Your task to perform on an android device: Go to network settings Image 0: 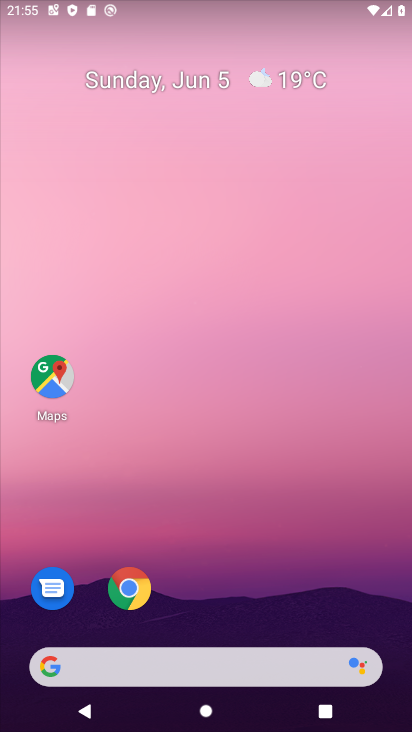
Step 0: drag from (309, 619) to (306, 140)
Your task to perform on an android device: Go to network settings Image 1: 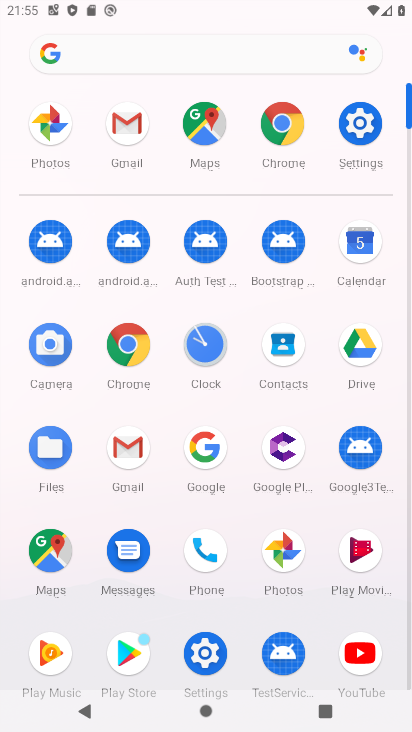
Step 1: click (370, 127)
Your task to perform on an android device: Go to network settings Image 2: 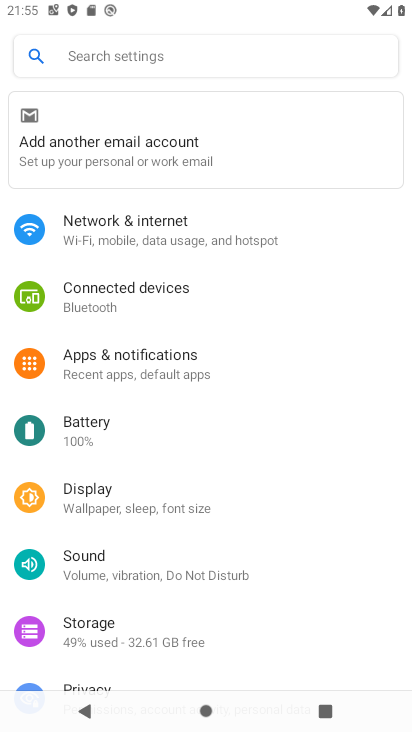
Step 2: drag from (341, 525) to (327, 361)
Your task to perform on an android device: Go to network settings Image 3: 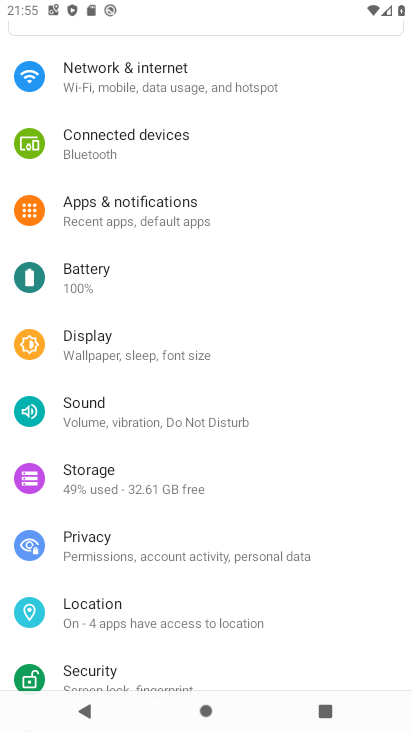
Step 3: drag from (352, 566) to (356, 409)
Your task to perform on an android device: Go to network settings Image 4: 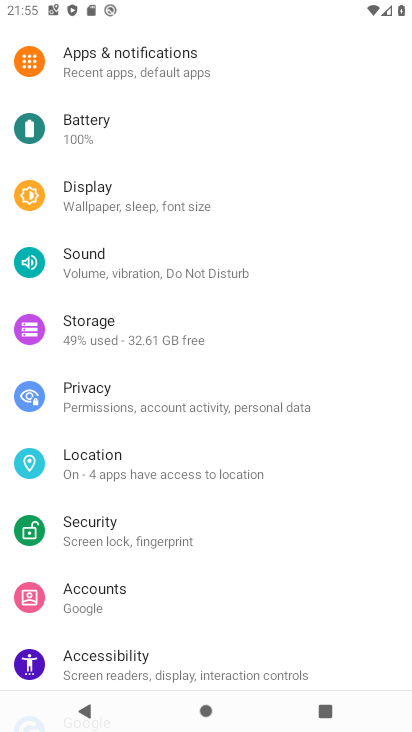
Step 4: drag from (338, 528) to (338, 327)
Your task to perform on an android device: Go to network settings Image 5: 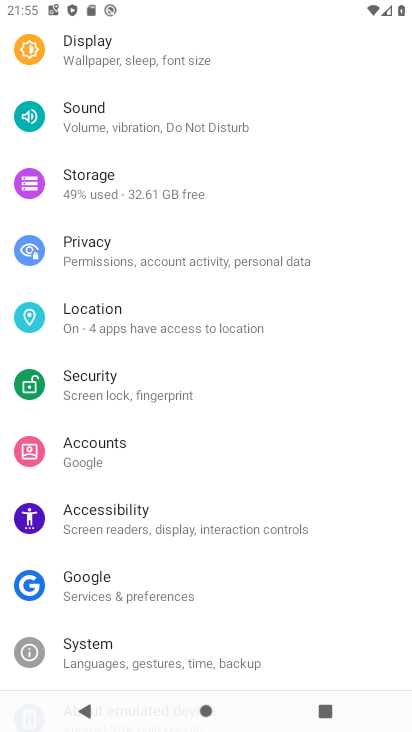
Step 5: drag from (347, 602) to (360, 394)
Your task to perform on an android device: Go to network settings Image 6: 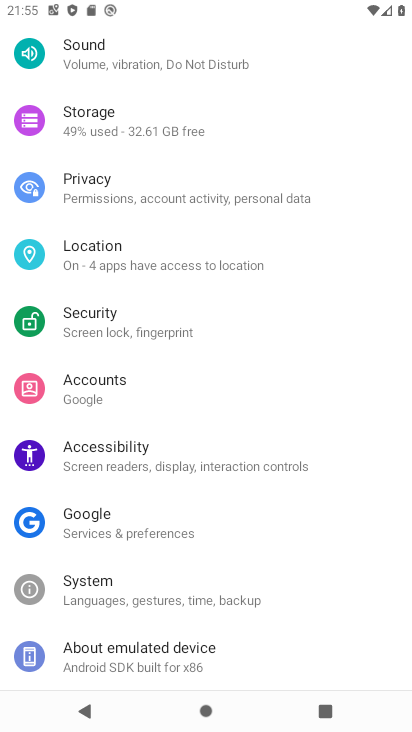
Step 6: drag from (331, 521) to (323, 279)
Your task to perform on an android device: Go to network settings Image 7: 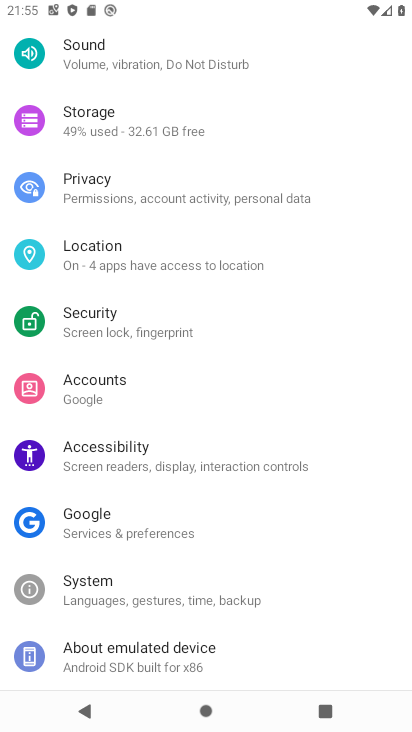
Step 7: drag from (341, 647) to (327, 385)
Your task to perform on an android device: Go to network settings Image 8: 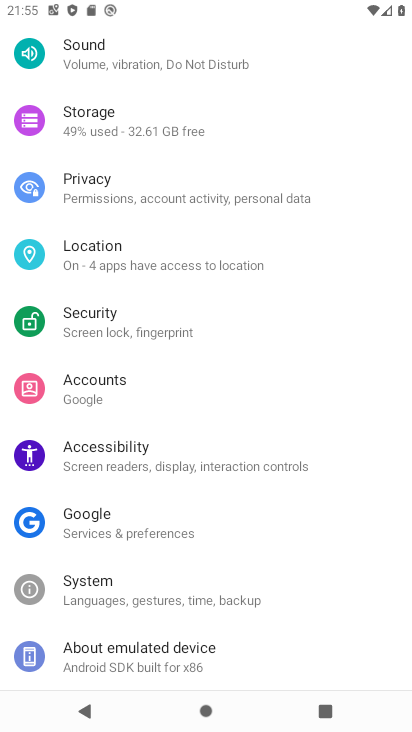
Step 8: drag from (349, 259) to (362, 394)
Your task to perform on an android device: Go to network settings Image 9: 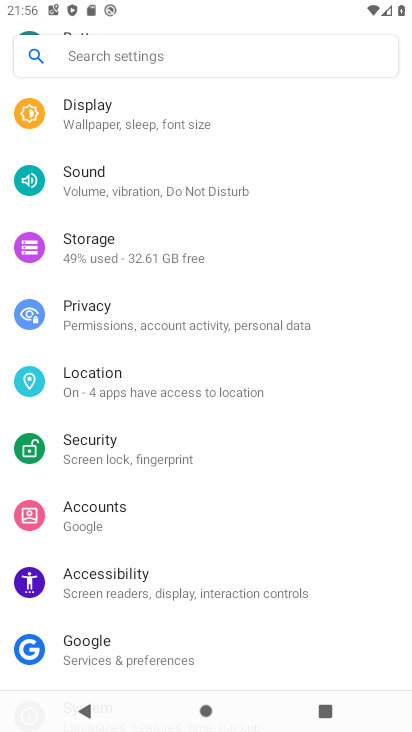
Step 9: drag from (357, 194) to (356, 345)
Your task to perform on an android device: Go to network settings Image 10: 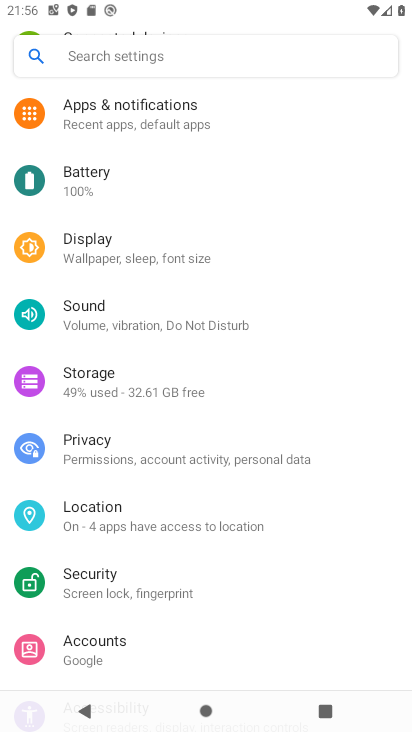
Step 10: drag from (357, 181) to (359, 391)
Your task to perform on an android device: Go to network settings Image 11: 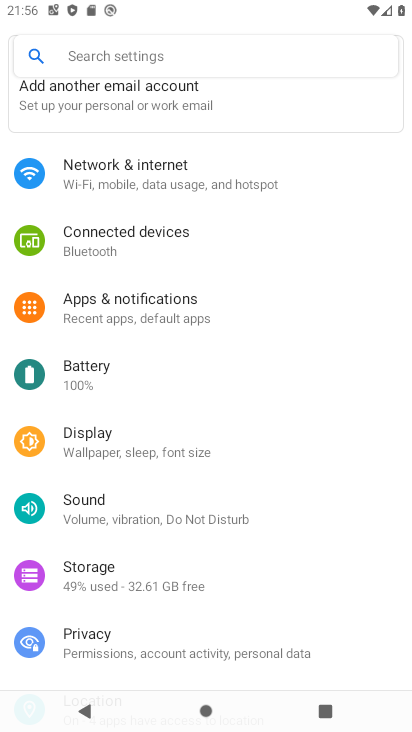
Step 11: click (283, 182)
Your task to perform on an android device: Go to network settings Image 12: 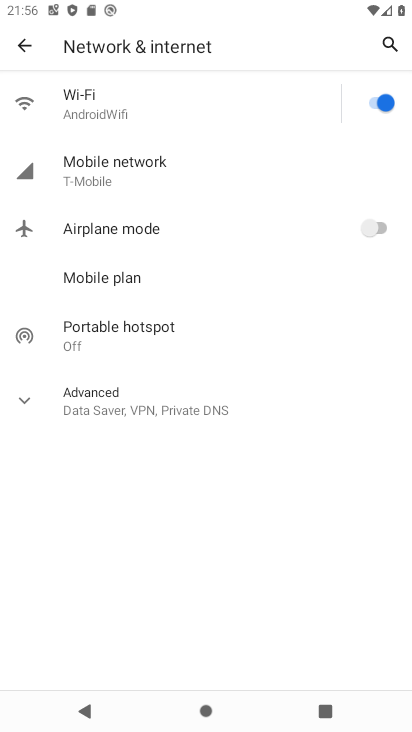
Step 12: task complete